Your task to perform on an android device: Go to accessibility settings Image 0: 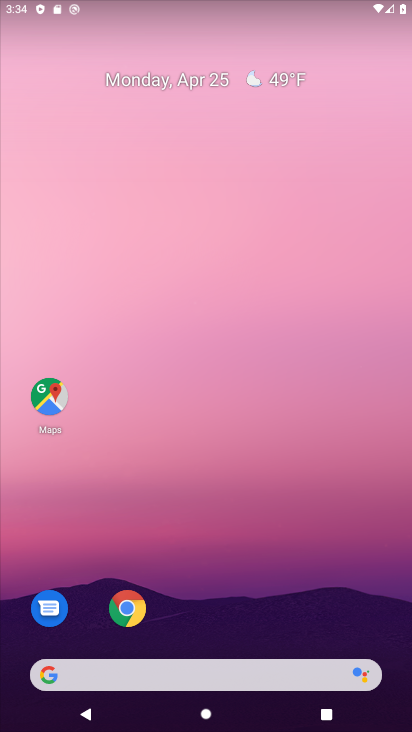
Step 0: drag from (243, 463) to (243, 186)
Your task to perform on an android device: Go to accessibility settings Image 1: 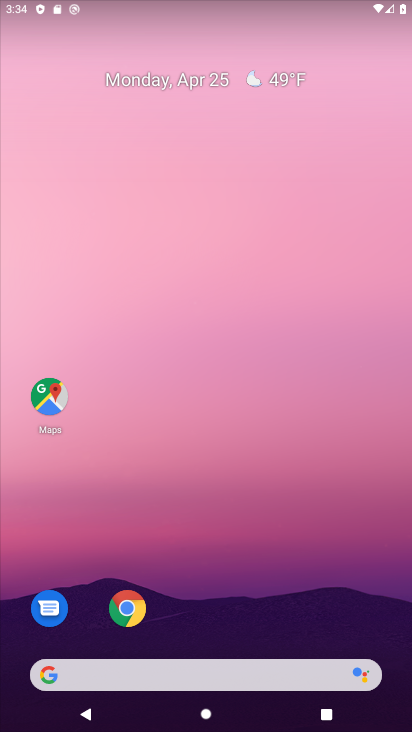
Step 1: drag from (209, 626) to (222, 102)
Your task to perform on an android device: Go to accessibility settings Image 2: 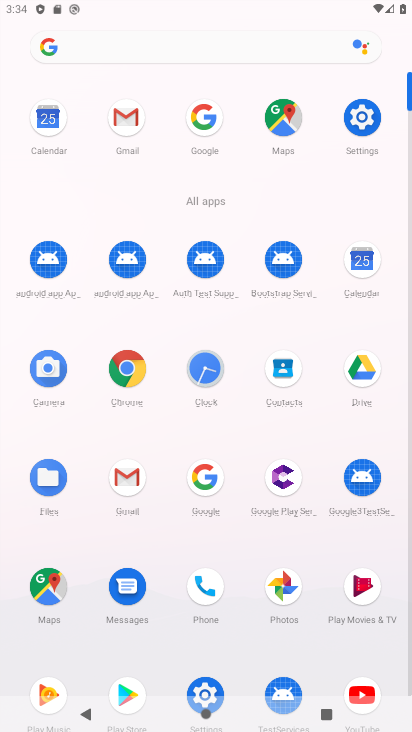
Step 2: click (374, 128)
Your task to perform on an android device: Go to accessibility settings Image 3: 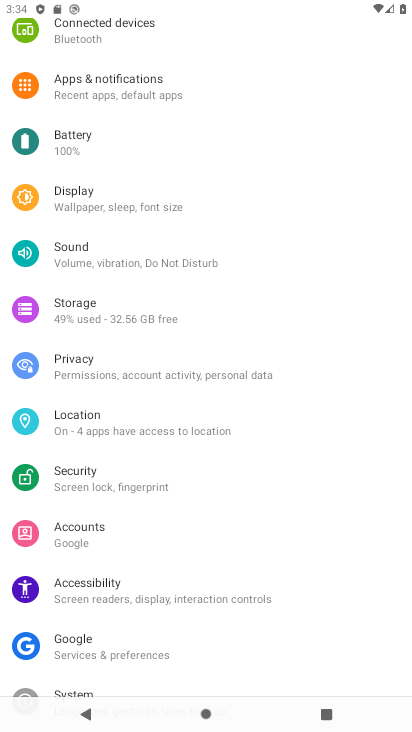
Step 3: click (130, 597)
Your task to perform on an android device: Go to accessibility settings Image 4: 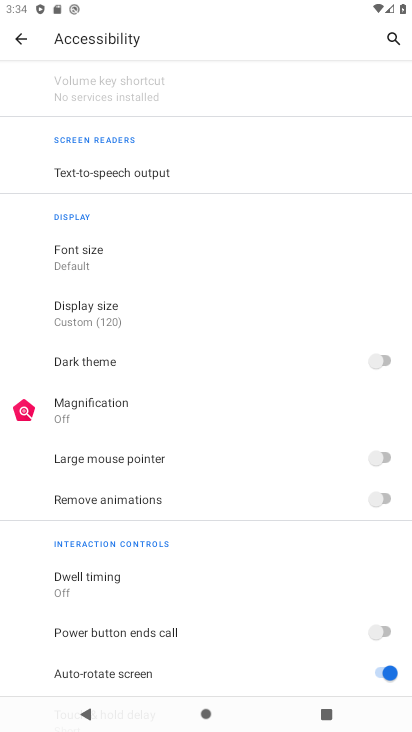
Step 4: task complete